Your task to perform on an android device: toggle show notifications on the lock screen Image 0: 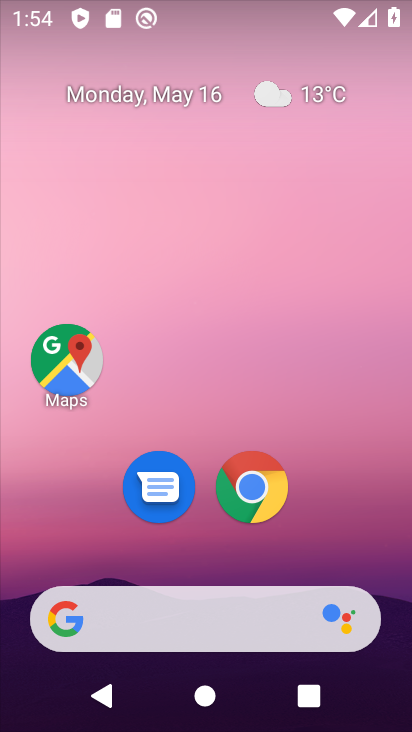
Step 0: drag from (320, 549) to (124, 74)
Your task to perform on an android device: toggle show notifications on the lock screen Image 1: 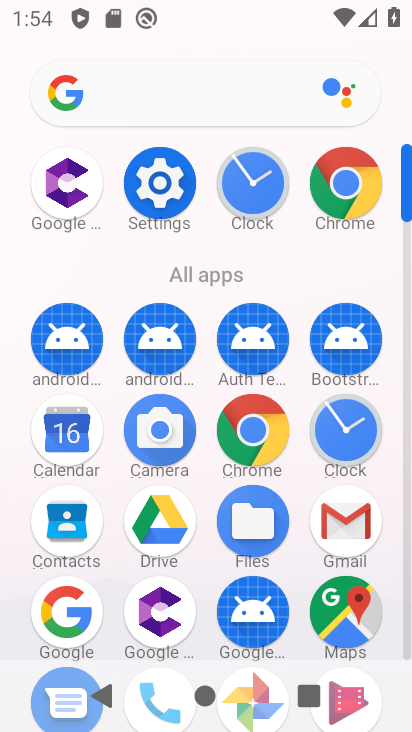
Step 1: click (140, 198)
Your task to perform on an android device: toggle show notifications on the lock screen Image 2: 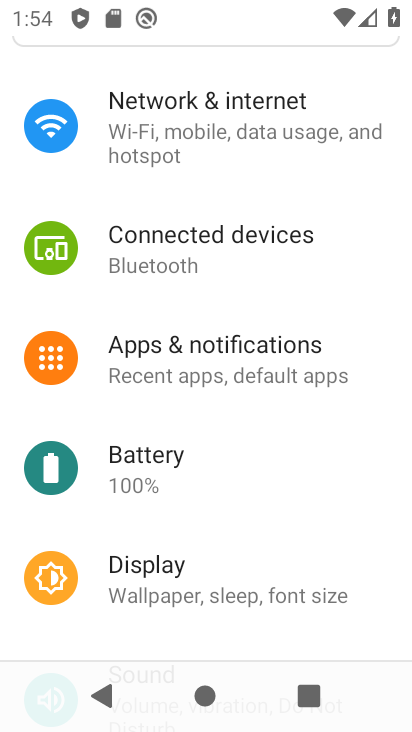
Step 2: click (199, 376)
Your task to perform on an android device: toggle show notifications on the lock screen Image 3: 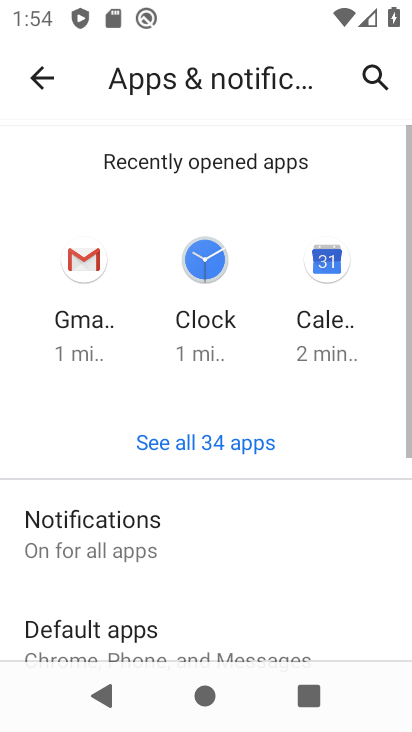
Step 3: drag from (149, 595) to (139, 299)
Your task to perform on an android device: toggle show notifications on the lock screen Image 4: 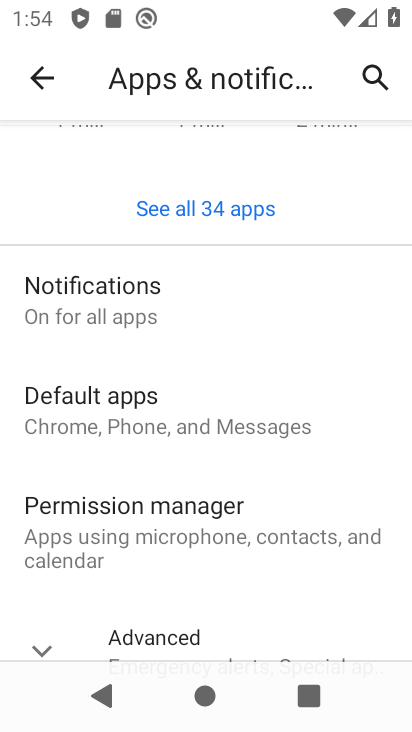
Step 4: drag from (142, 412) to (129, 309)
Your task to perform on an android device: toggle show notifications on the lock screen Image 5: 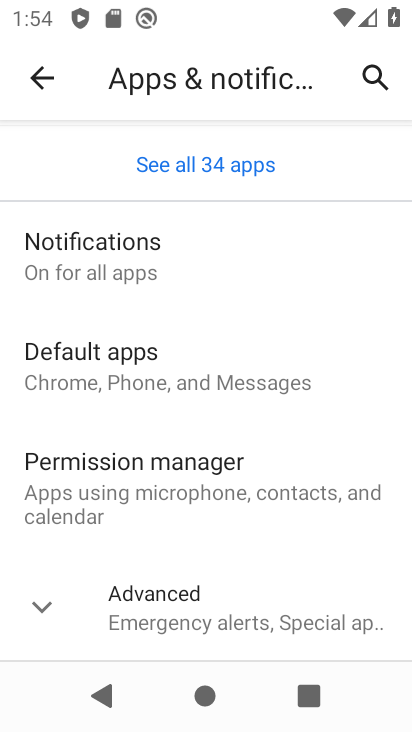
Step 5: click (110, 278)
Your task to perform on an android device: toggle show notifications on the lock screen Image 6: 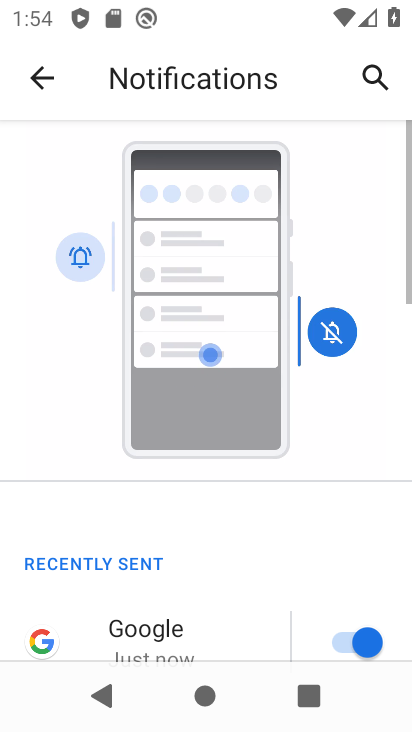
Step 6: drag from (133, 570) to (137, 251)
Your task to perform on an android device: toggle show notifications on the lock screen Image 7: 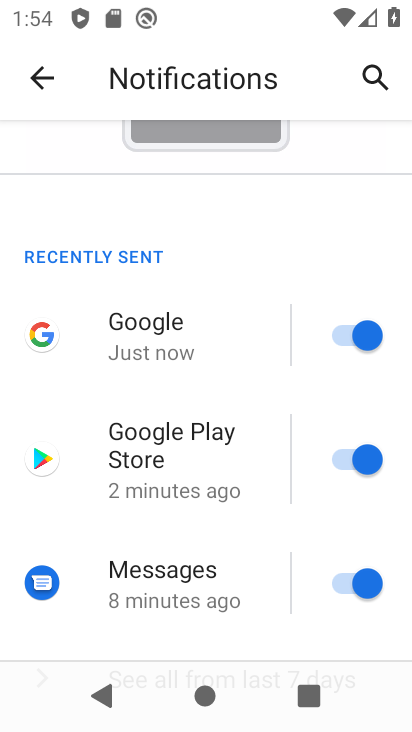
Step 7: drag from (165, 637) to (122, 320)
Your task to perform on an android device: toggle show notifications on the lock screen Image 8: 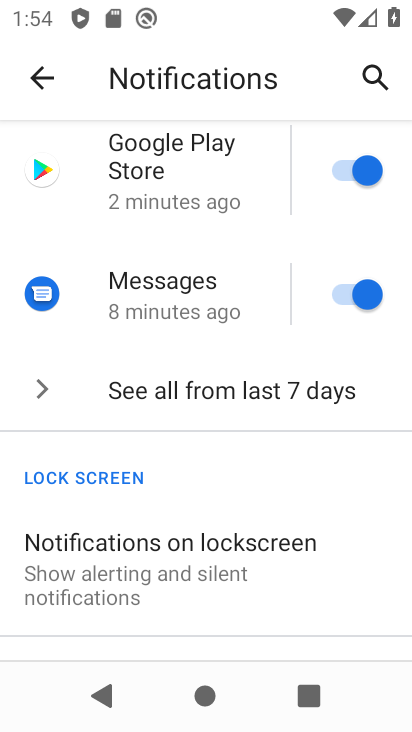
Step 8: click (127, 583)
Your task to perform on an android device: toggle show notifications on the lock screen Image 9: 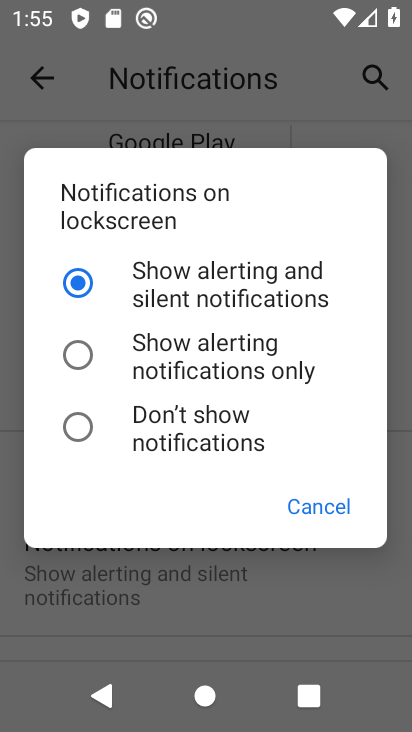
Step 9: click (212, 349)
Your task to perform on an android device: toggle show notifications on the lock screen Image 10: 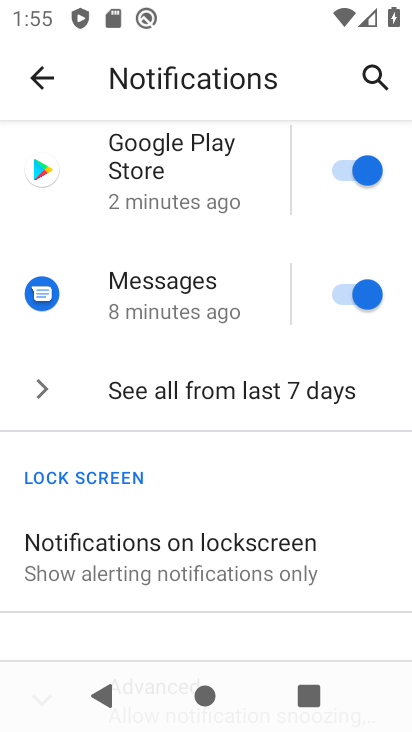
Step 10: task complete